Your task to perform on an android device: Go to Yahoo.com Image 0: 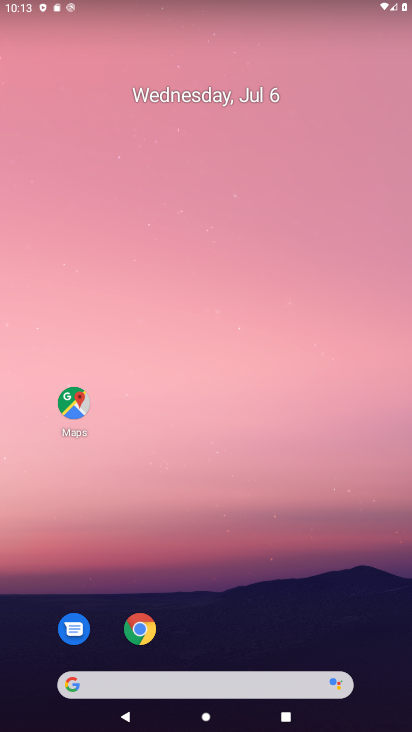
Step 0: click (140, 632)
Your task to perform on an android device: Go to Yahoo.com Image 1: 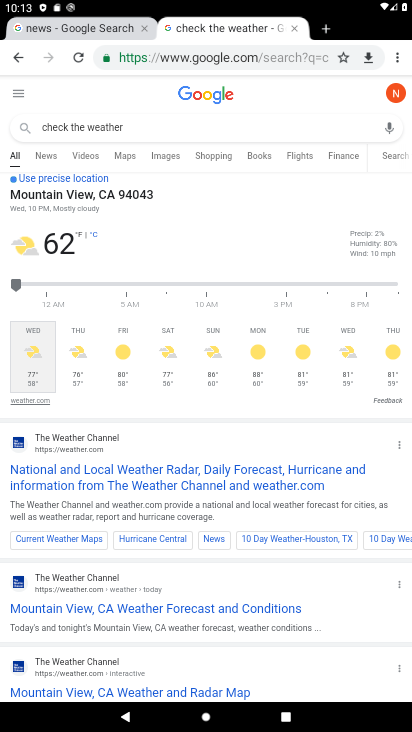
Step 1: click (217, 51)
Your task to perform on an android device: Go to Yahoo.com Image 2: 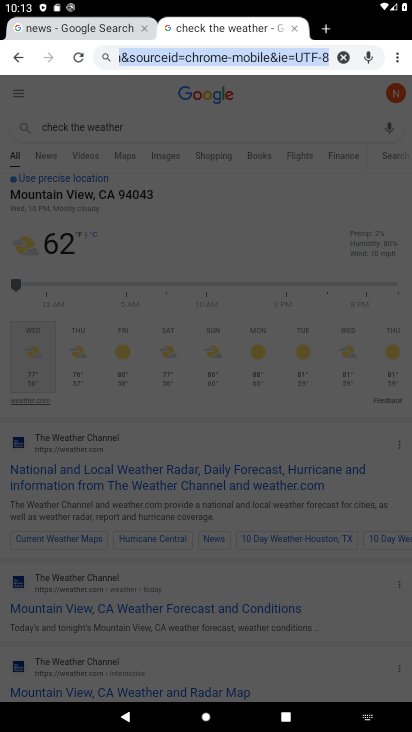
Step 2: type "yahoo.com"
Your task to perform on an android device: Go to Yahoo.com Image 3: 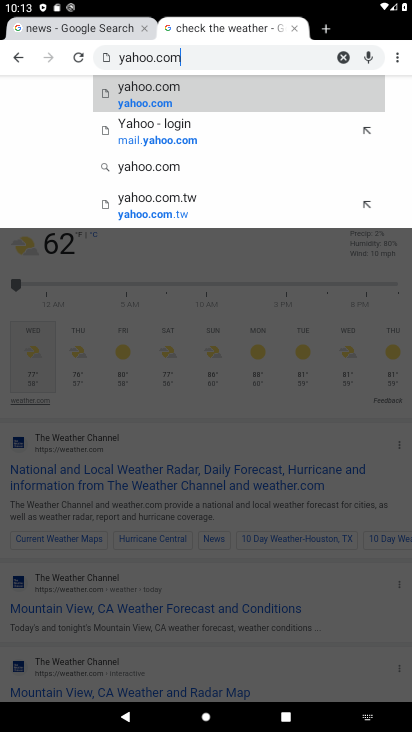
Step 3: click (227, 87)
Your task to perform on an android device: Go to Yahoo.com Image 4: 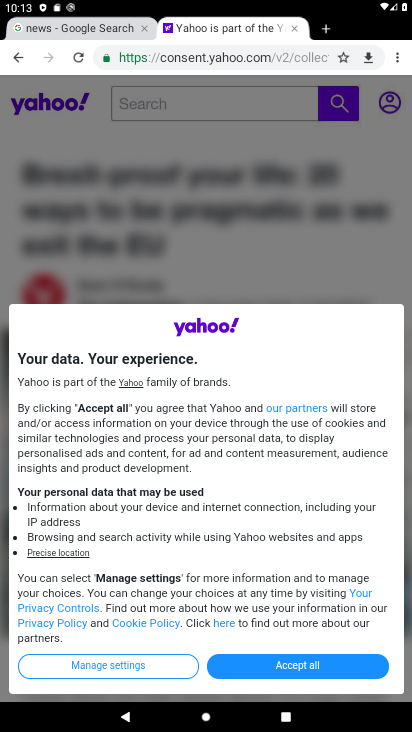
Step 4: click (266, 675)
Your task to perform on an android device: Go to Yahoo.com Image 5: 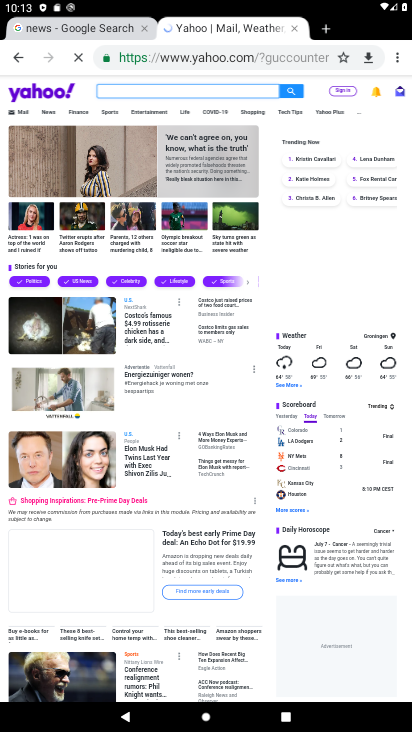
Step 5: task complete